Your task to perform on an android device: Open the calendar and show me this week's events? Image 0: 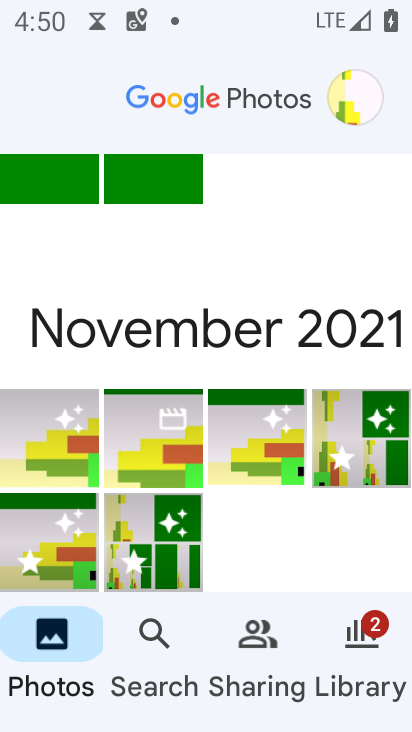
Step 0: press home button
Your task to perform on an android device: Open the calendar and show me this week's events? Image 1: 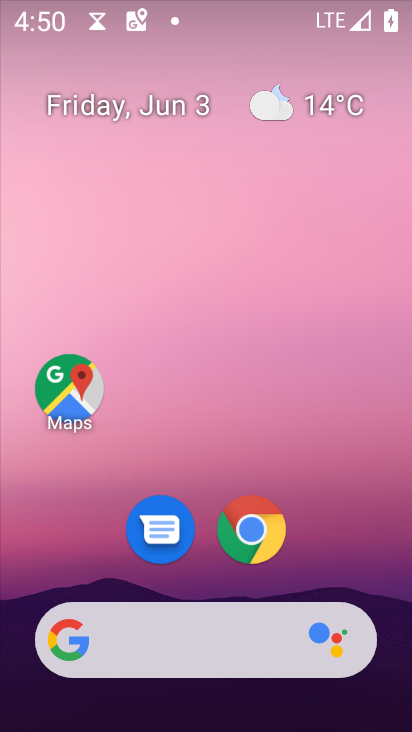
Step 1: drag from (269, 550) to (308, 500)
Your task to perform on an android device: Open the calendar and show me this week's events? Image 2: 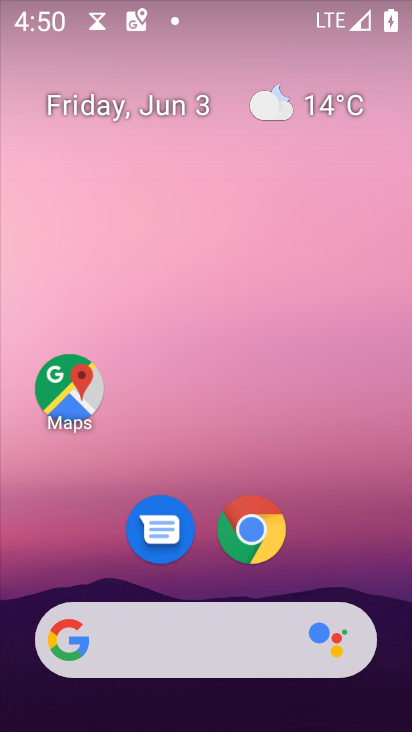
Step 2: click (118, 109)
Your task to perform on an android device: Open the calendar and show me this week's events? Image 3: 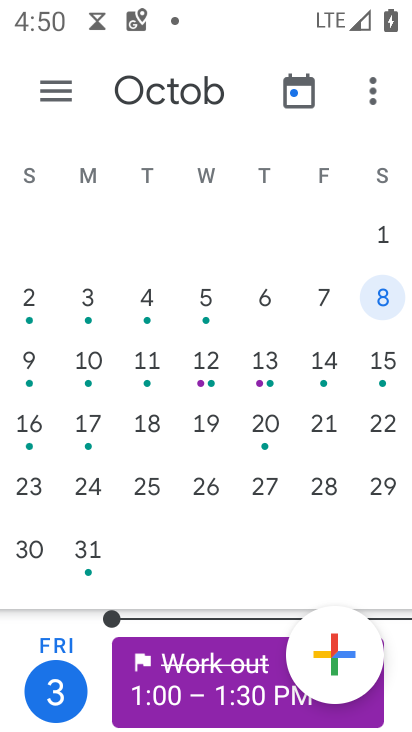
Step 3: click (332, 406)
Your task to perform on an android device: Open the calendar and show me this week's events? Image 4: 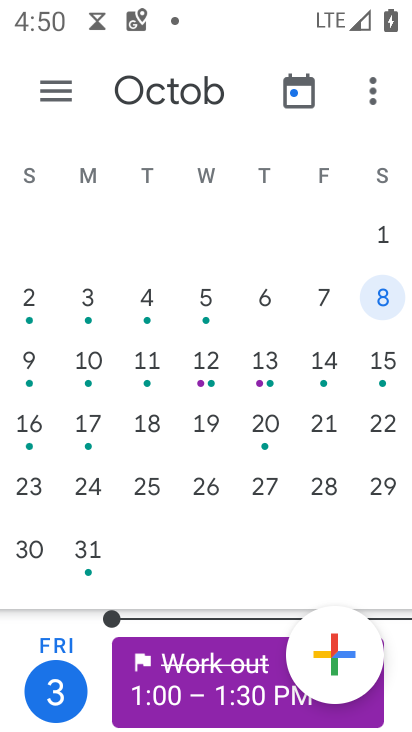
Step 4: click (80, 369)
Your task to perform on an android device: Open the calendar and show me this week's events? Image 5: 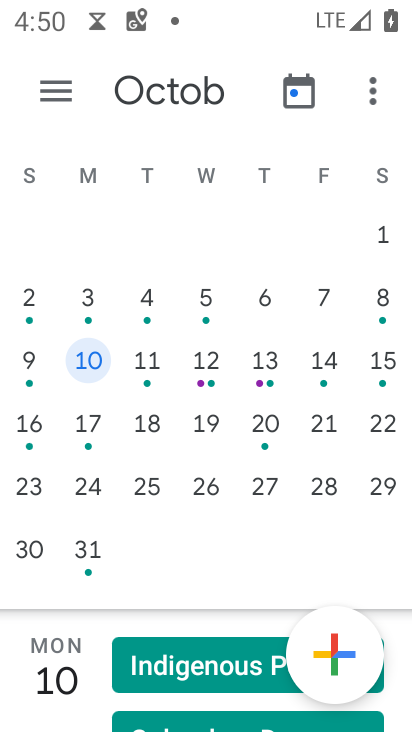
Step 5: task complete